Your task to perform on an android device: Open CNN.com Image 0: 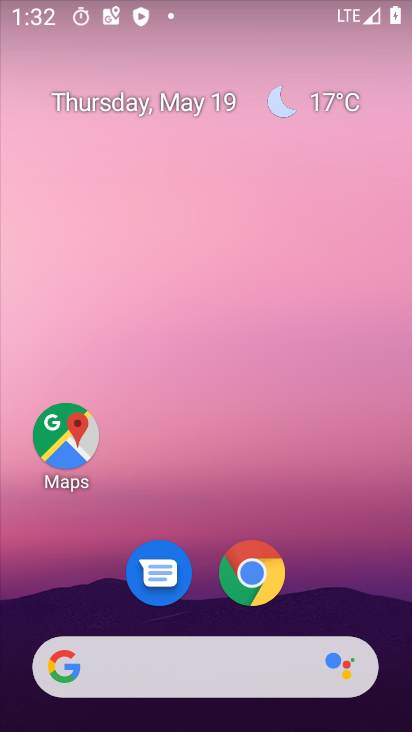
Step 0: click (262, 582)
Your task to perform on an android device: Open CNN.com Image 1: 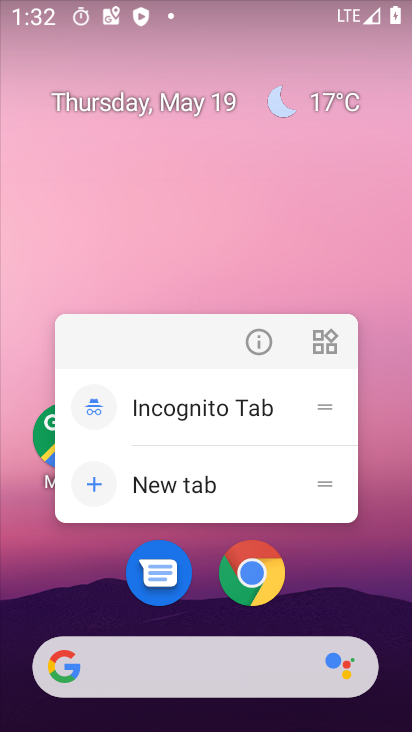
Step 1: click (251, 567)
Your task to perform on an android device: Open CNN.com Image 2: 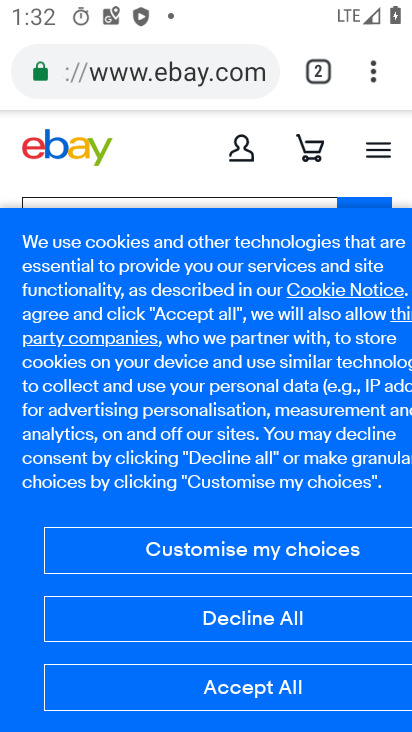
Step 2: click (304, 64)
Your task to perform on an android device: Open CNN.com Image 3: 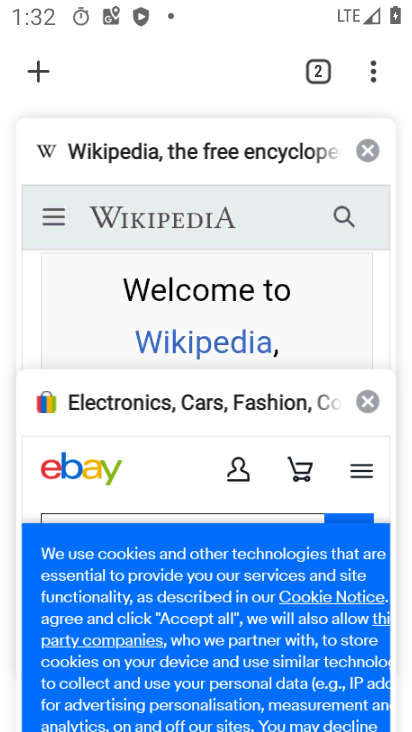
Step 3: click (40, 67)
Your task to perform on an android device: Open CNN.com Image 4: 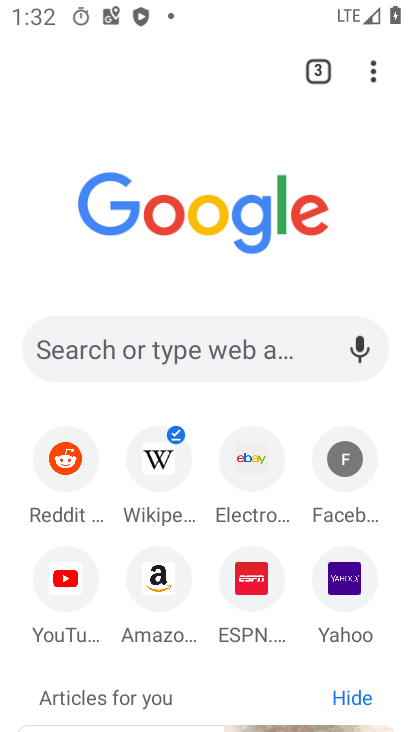
Step 4: click (154, 366)
Your task to perform on an android device: Open CNN.com Image 5: 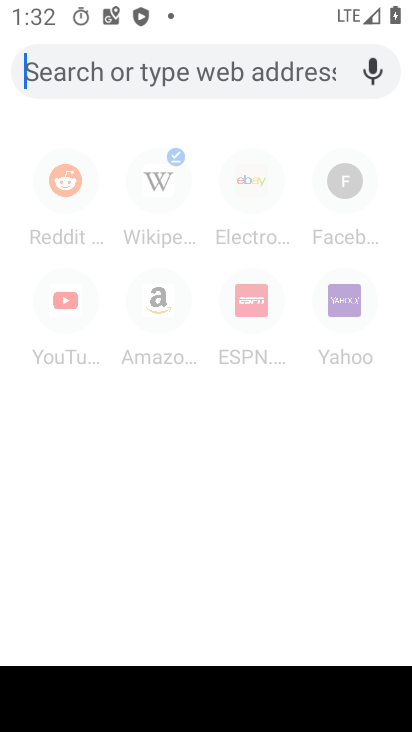
Step 5: click (100, 73)
Your task to perform on an android device: Open CNN.com Image 6: 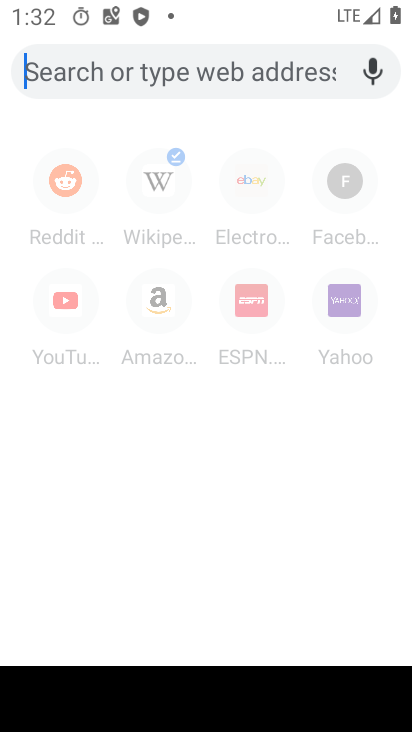
Step 6: type "cnn.com"
Your task to perform on an android device: Open CNN.com Image 7: 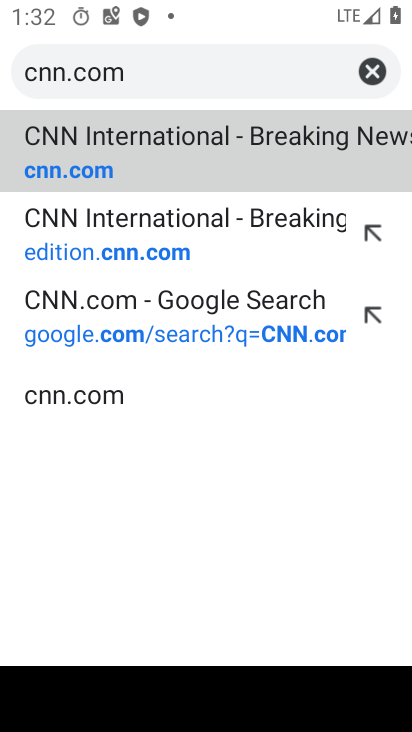
Step 7: click (146, 166)
Your task to perform on an android device: Open CNN.com Image 8: 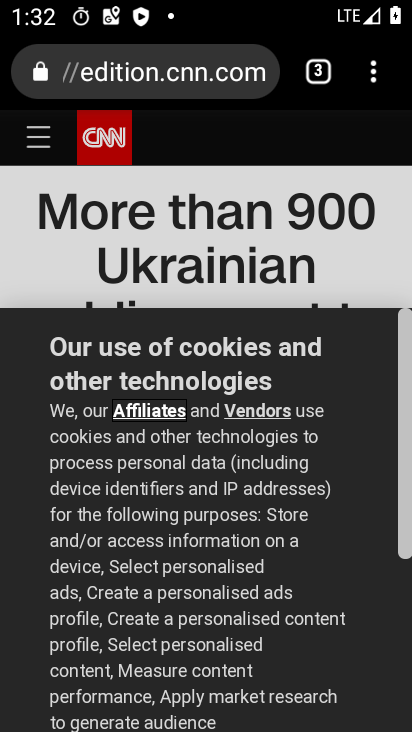
Step 8: task complete